Your task to perform on an android device: What's the weather going to be tomorrow? Image 0: 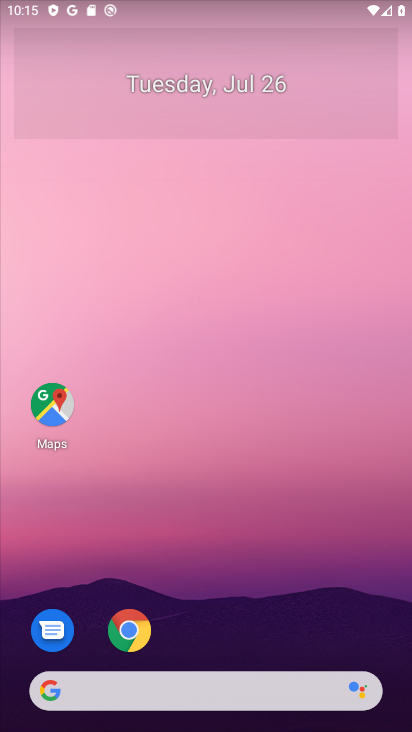
Step 0: drag from (275, 625) to (263, 209)
Your task to perform on an android device: What's the weather going to be tomorrow? Image 1: 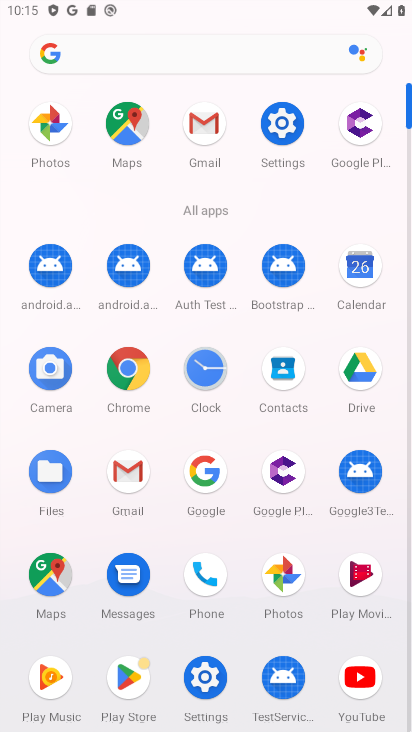
Step 1: press home button
Your task to perform on an android device: What's the weather going to be tomorrow? Image 2: 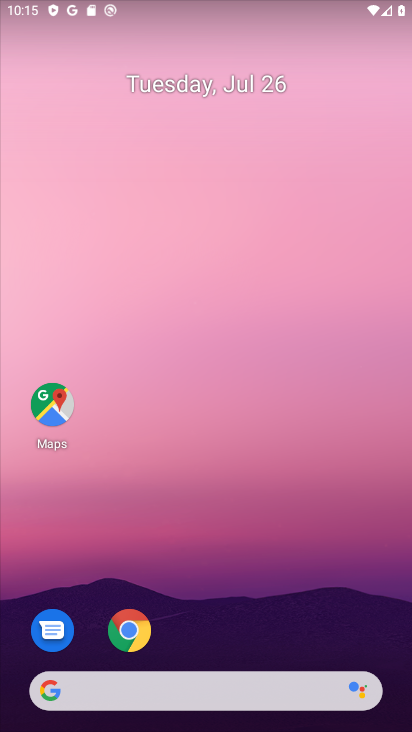
Step 2: click (163, 695)
Your task to perform on an android device: What's the weather going to be tomorrow? Image 3: 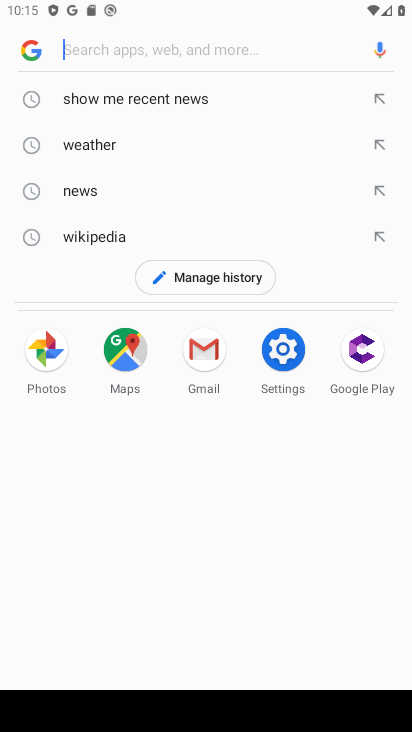
Step 3: type "What's the weather going to be tomorrow?"
Your task to perform on an android device: What's the weather going to be tomorrow? Image 4: 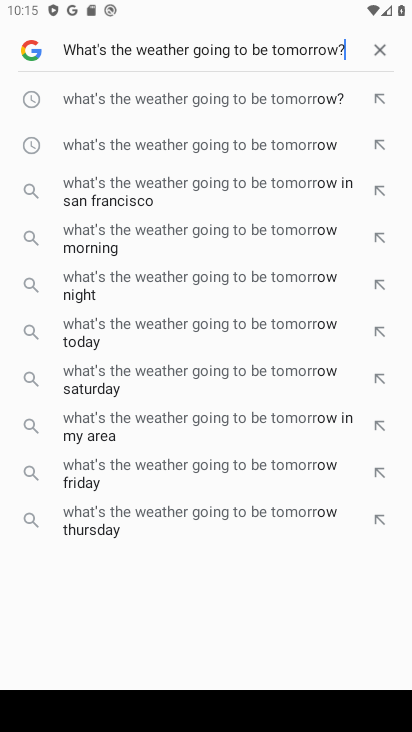
Step 4: press enter
Your task to perform on an android device: What's the weather going to be tomorrow? Image 5: 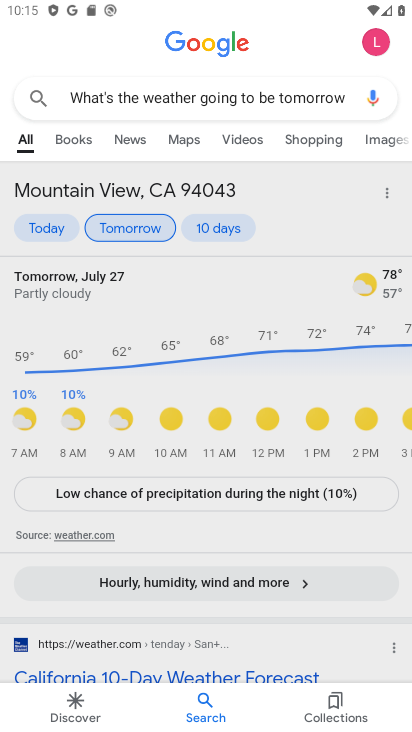
Step 5: task complete